Your task to perform on an android device: show emergency info Image 0: 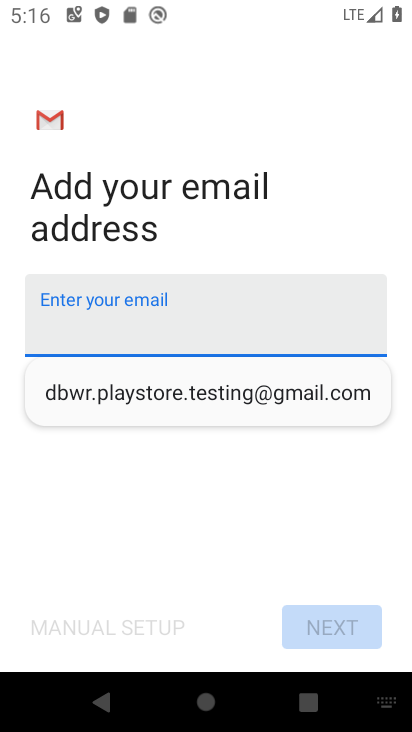
Step 0: press home button
Your task to perform on an android device: show emergency info Image 1: 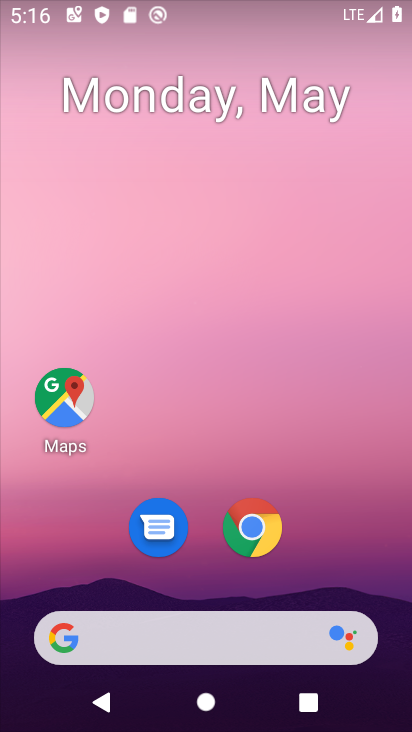
Step 1: drag from (394, 675) to (368, 55)
Your task to perform on an android device: show emergency info Image 2: 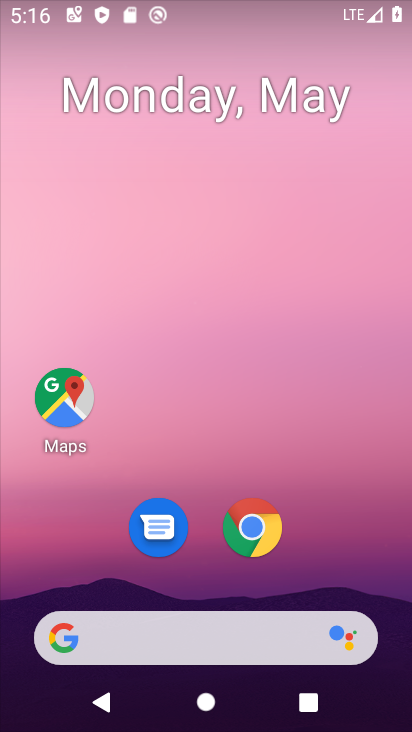
Step 2: drag from (391, 674) to (357, 101)
Your task to perform on an android device: show emergency info Image 3: 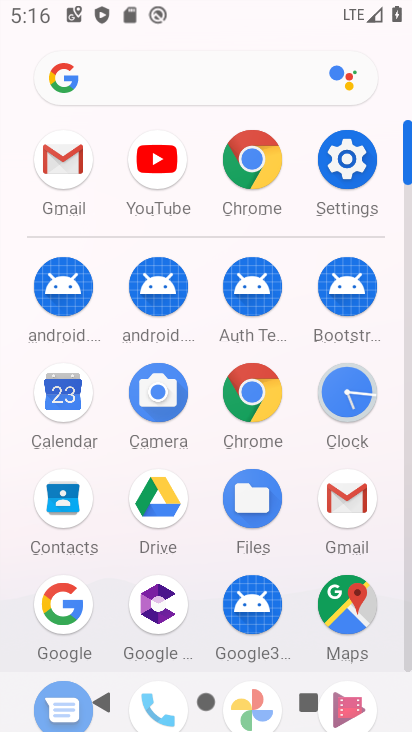
Step 3: click (354, 160)
Your task to perform on an android device: show emergency info Image 4: 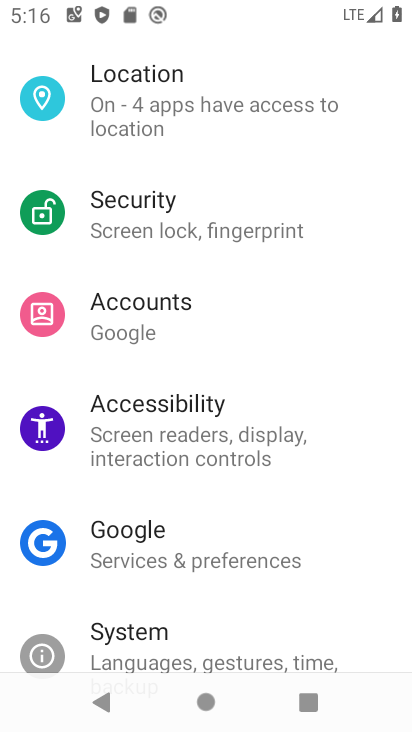
Step 4: drag from (368, 645) to (356, 261)
Your task to perform on an android device: show emergency info Image 5: 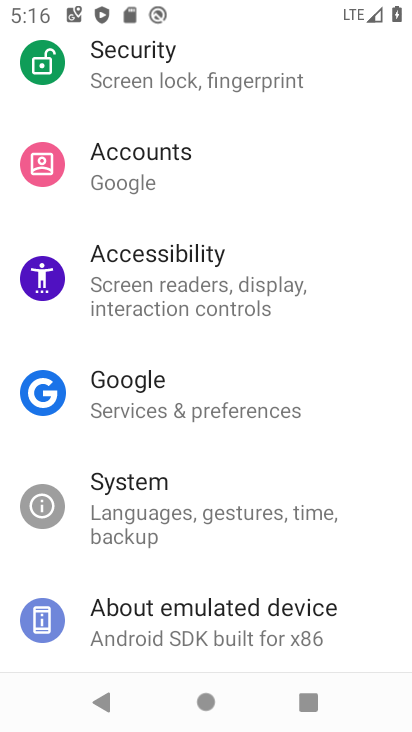
Step 5: click (135, 624)
Your task to perform on an android device: show emergency info Image 6: 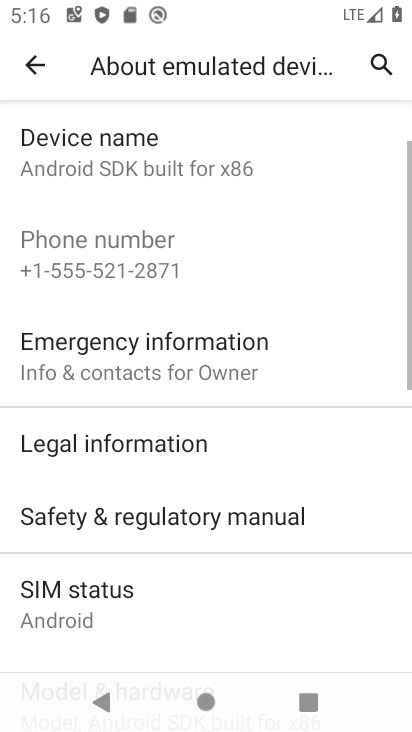
Step 6: click (117, 366)
Your task to perform on an android device: show emergency info Image 7: 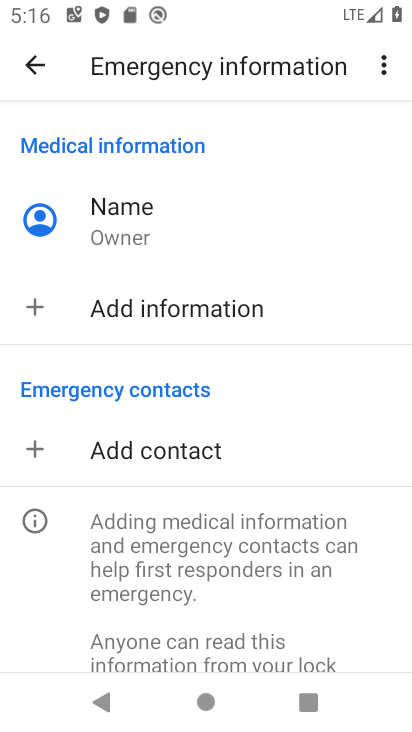
Step 7: task complete